Your task to perform on an android device: open a bookmark in the chrome app Image 0: 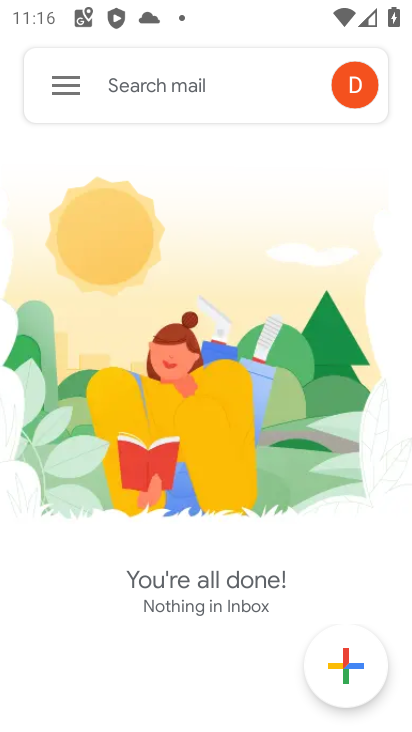
Step 0: press home button
Your task to perform on an android device: open a bookmark in the chrome app Image 1: 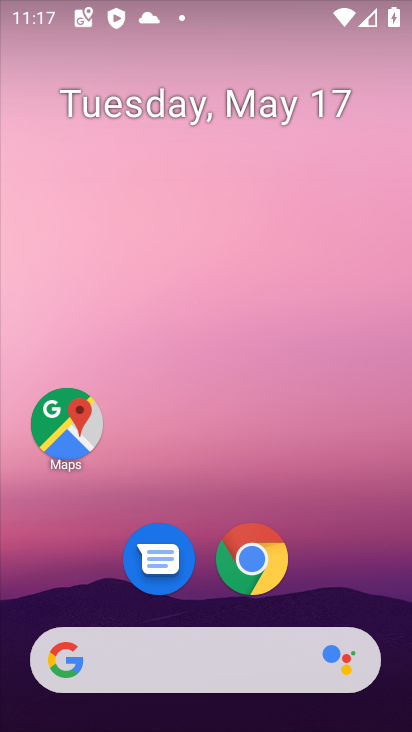
Step 1: click (249, 563)
Your task to perform on an android device: open a bookmark in the chrome app Image 2: 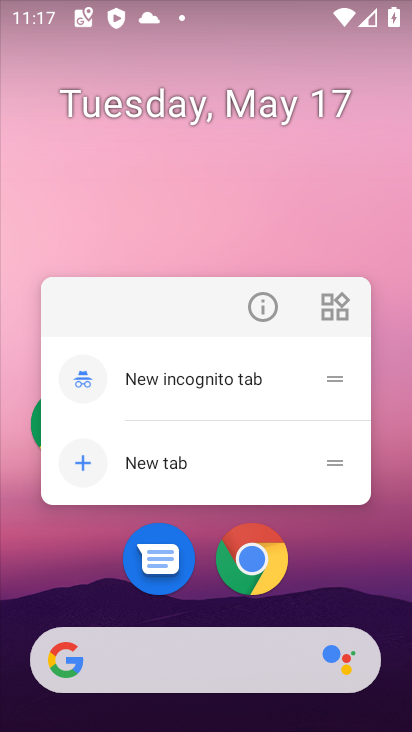
Step 2: click (249, 559)
Your task to perform on an android device: open a bookmark in the chrome app Image 3: 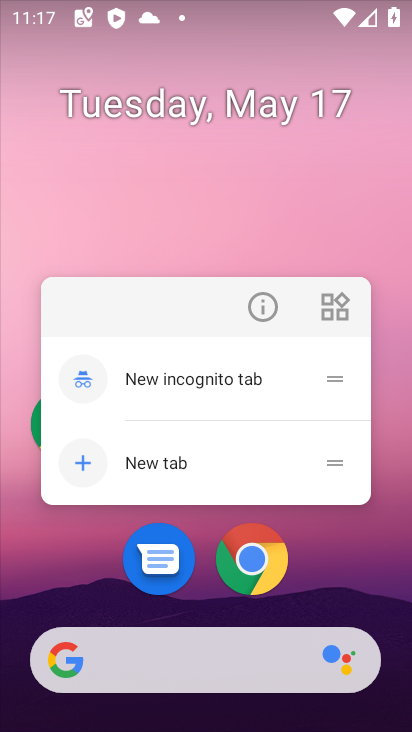
Step 3: click (249, 559)
Your task to perform on an android device: open a bookmark in the chrome app Image 4: 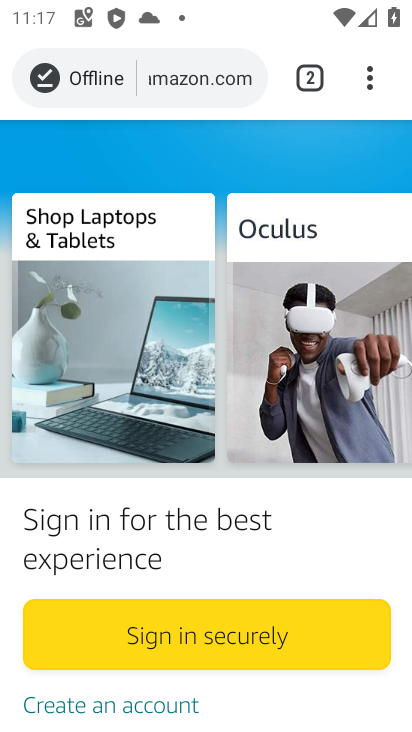
Step 4: click (375, 79)
Your task to perform on an android device: open a bookmark in the chrome app Image 5: 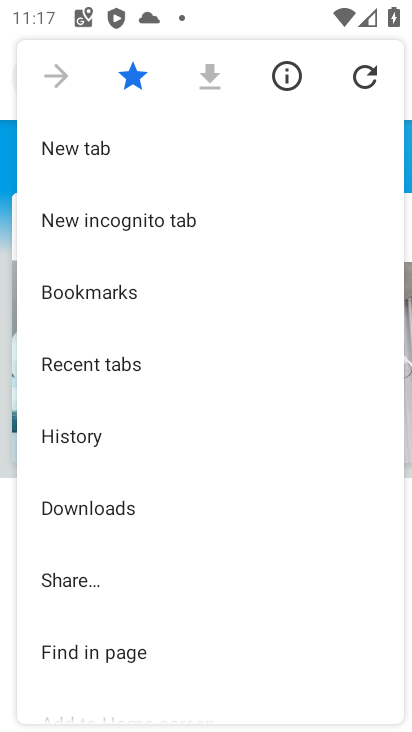
Step 5: click (104, 300)
Your task to perform on an android device: open a bookmark in the chrome app Image 6: 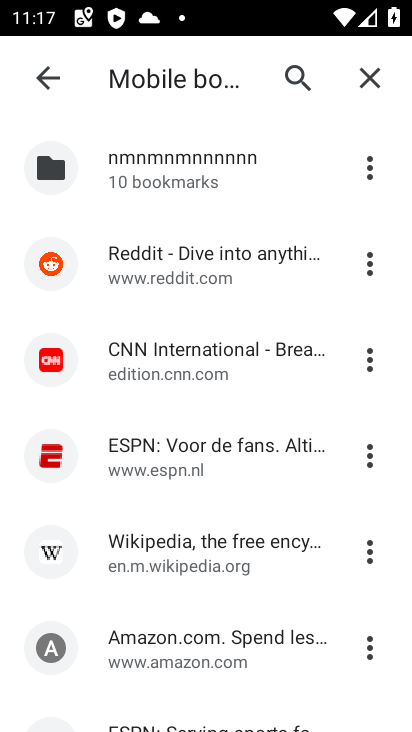
Step 6: click (178, 258)
Your task to perform on an android device: open a bookmark in the chrome app Image 7: 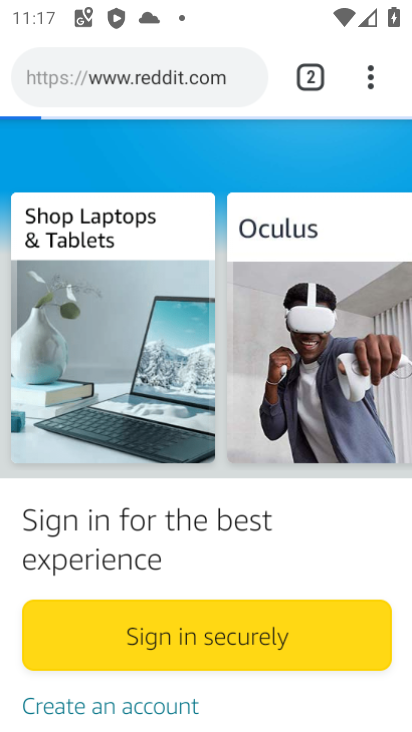
Step 7: task complete